Your task to perform on an android device: Open display settings Image 0: 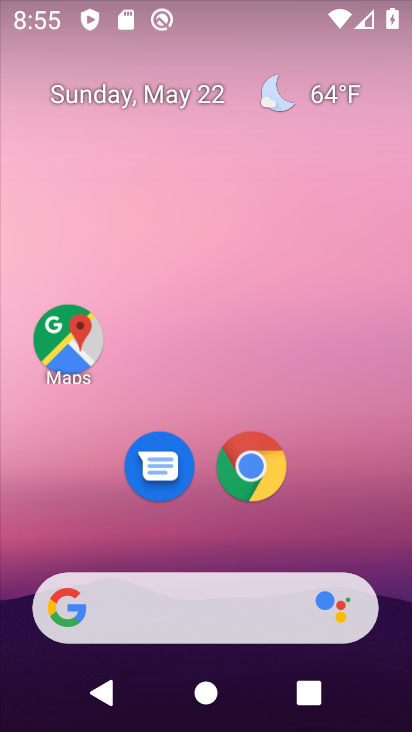
Step 0: drag from (267, 539) to (256, 100)
Your task to perform on an android device: Open display settings Image 1: 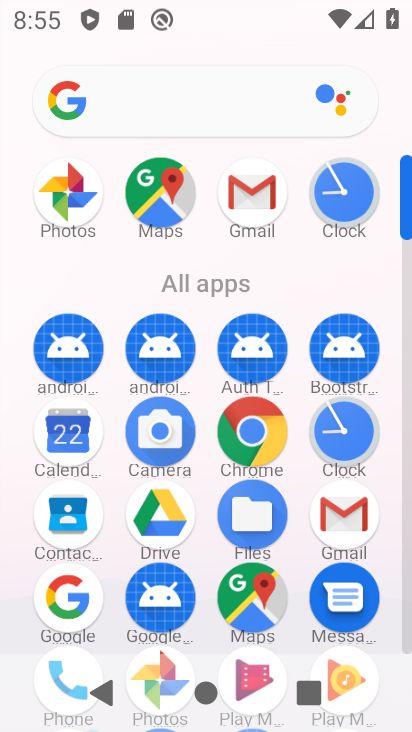
Step 1: drag from (303, 256) to (277, 14)
Your task to perform on an android device: Open display settings Image 2: 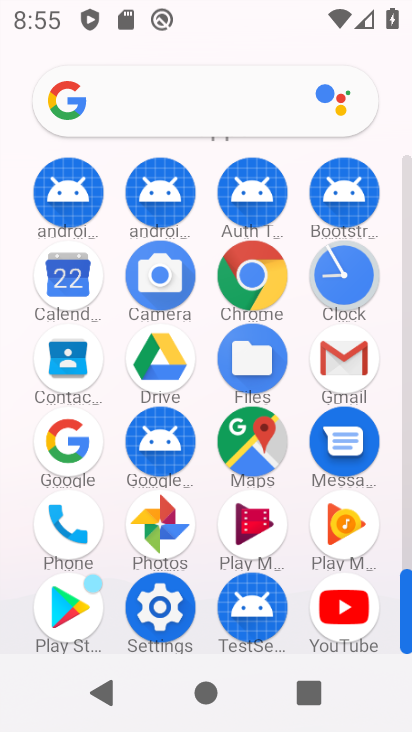
Step 2: click (152, 608)
Your task to perform on an android device: Open display settings Image 3: 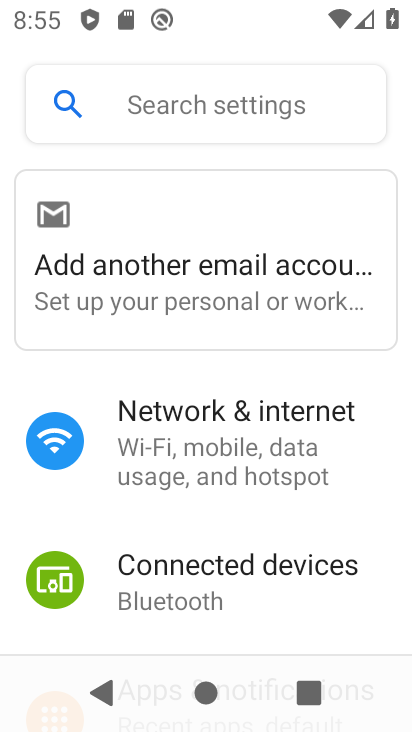
Step 3: drag from (205, 523) to (211, 130)
Your task to perform on an android device: Open display settings Image 4: 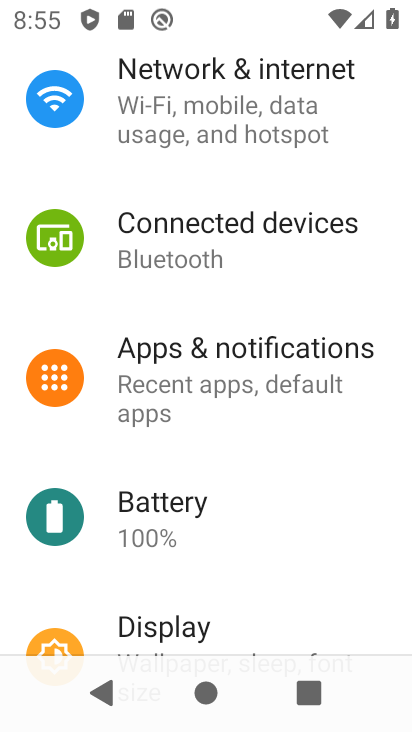
Step 4: drag from (216, 575) to (247, 224)
Your task to perform on an android device: Open display settings Image 5: 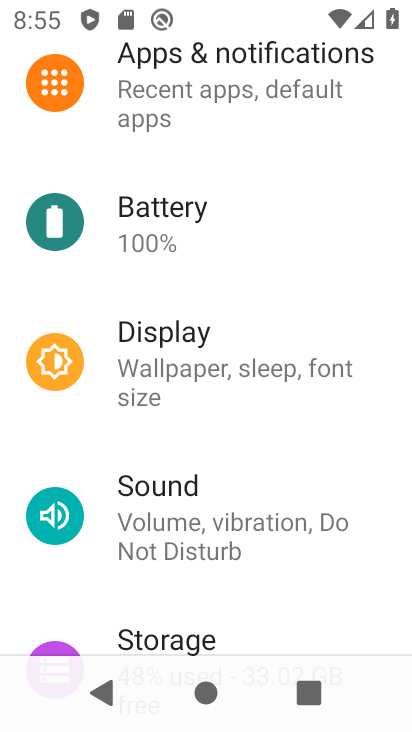
Step 5: click (180, 336)
Your task to perform on an android device: Open display settings Image 6: 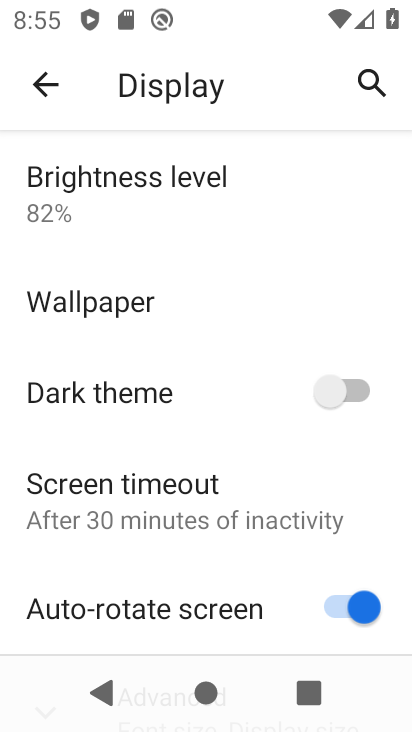
Step 6: task complete